Your task to perform on an android device: all mails in gmail Image 0: 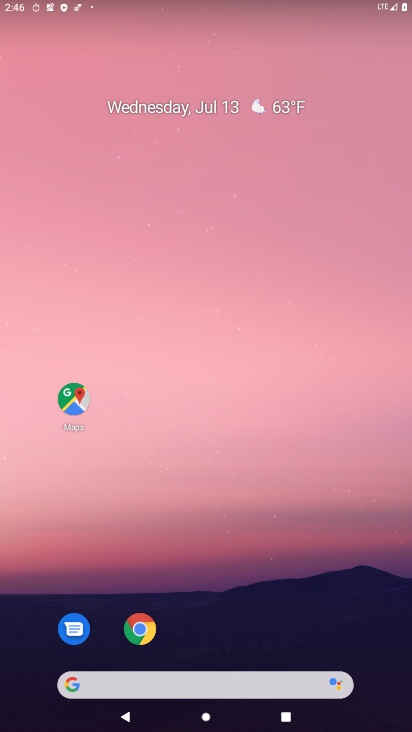
Step 0: drag from (176, 632) to (214, 36)
Your task to perform on an android device: all mails in gmail Image 1: 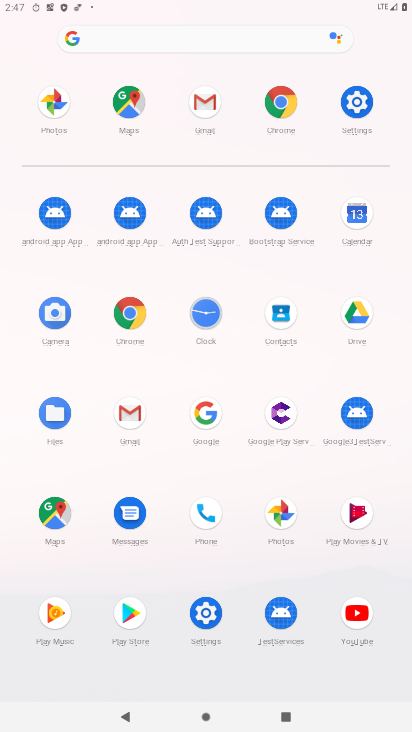
Step 1: drag from (150, 558) to (207, 157)
Your task to perform on an android device: all mails in gmail Image 2: 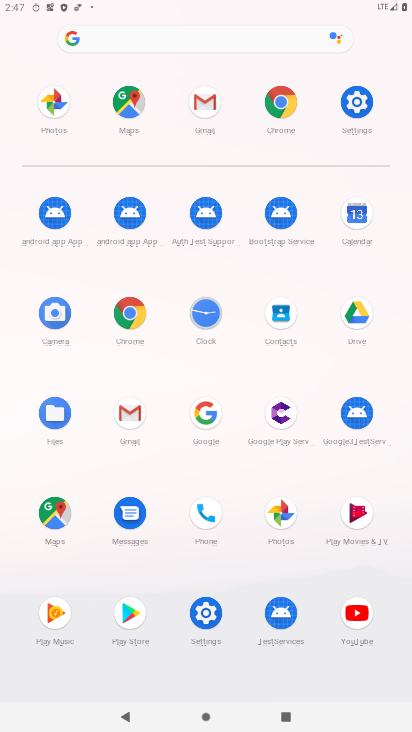
Step 2: click (126, 412)
Your task to perform on an android device: all mails in gmail Image 3: 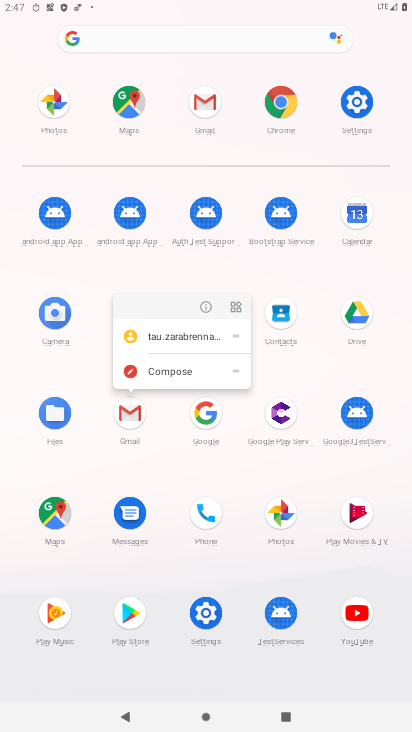
Step 3: click (207, 303)
Your task to perform on an android device: all mails in gmail Image 4: 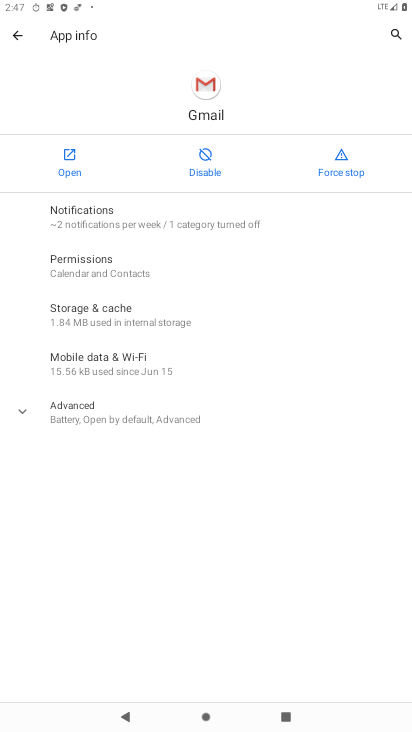
Step 4: click (65, 166)
Your task to perform on an android device: all mails in gmail Image 5: 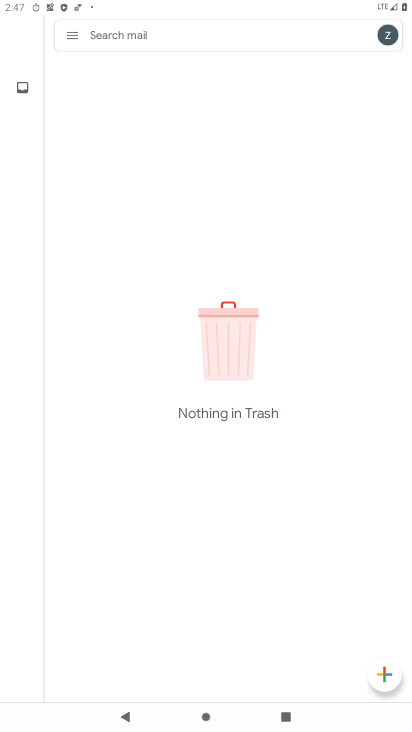
Step 5: drag from (189, 465) to (193, 158)
Your task to perform on an android device: all mails in gmail Image 6: 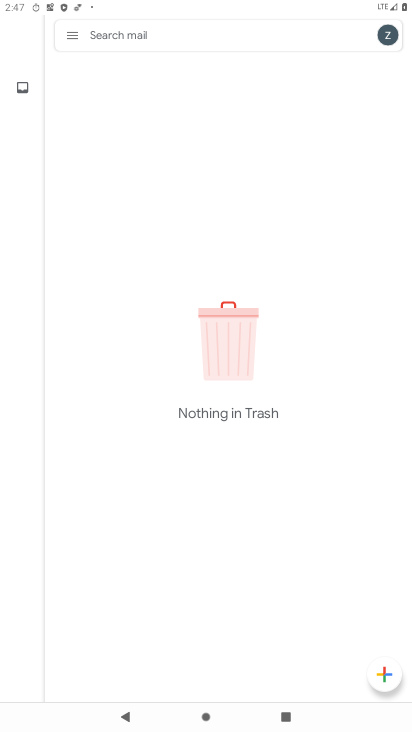
Step 6: drag from (259, 449) to (258, 405)
Your task to perform on an android device: all mails in gmail Image 7: 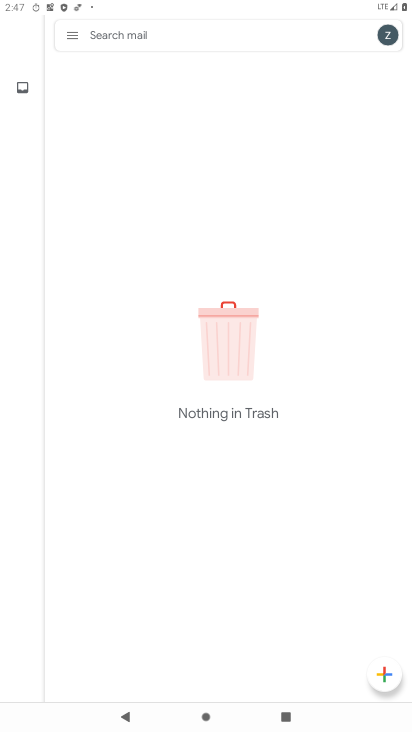
Step 7: click (62, 42)
Your task to perform on an android device: all mails in gmail Image 8: 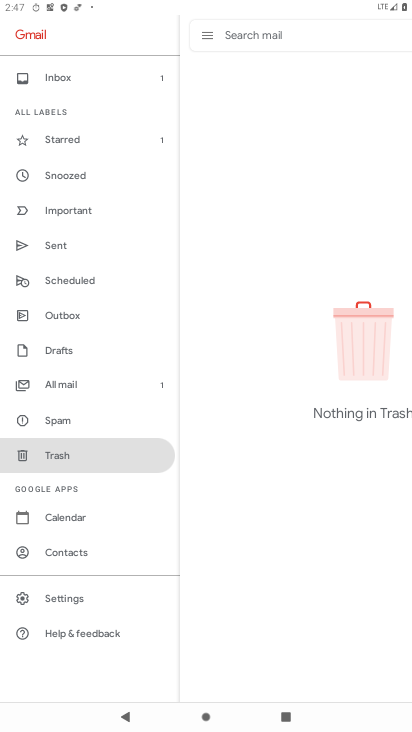
Step 8: click (61, 383)
Your task to perform on an android device: all mails in gmail Image 9: 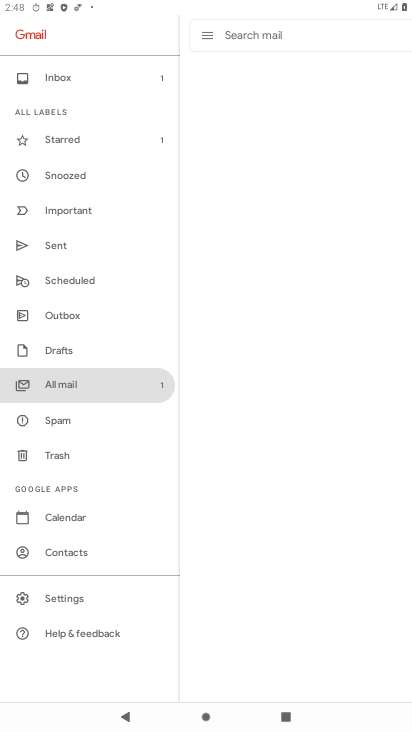
Step 9: task complete